Your task to perform on an android device: toggle priority inbox in the gmail app Image 0: 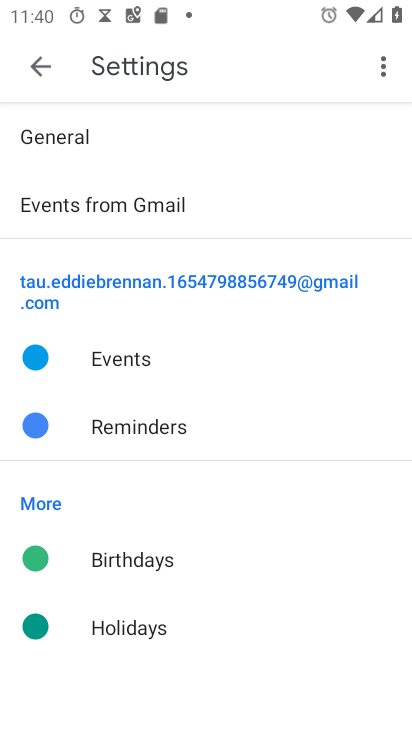
Step 0: press home button
Your task to perform on an android device: toggle priority inbox in the gmail app Image 1: 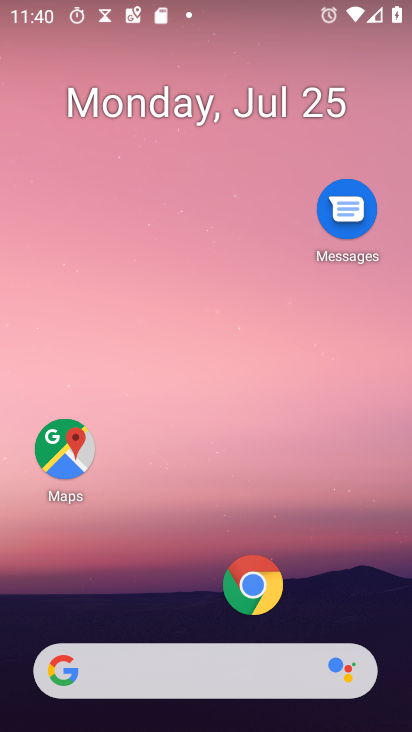
Step 1: drag from (164, 681) to (248, 205)
Your task to perform on an android device: toggle priority inbox in the gmail app Image 2: 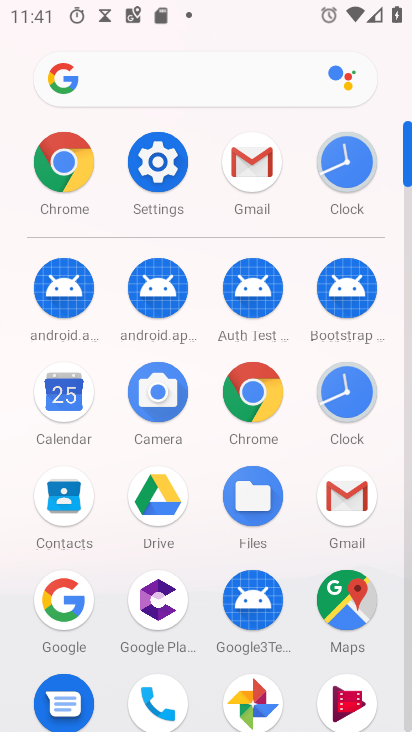
Step 2: click (254, 160)
Your task to perform on an android device: toggle priority inbox in the gmail app Image 3: 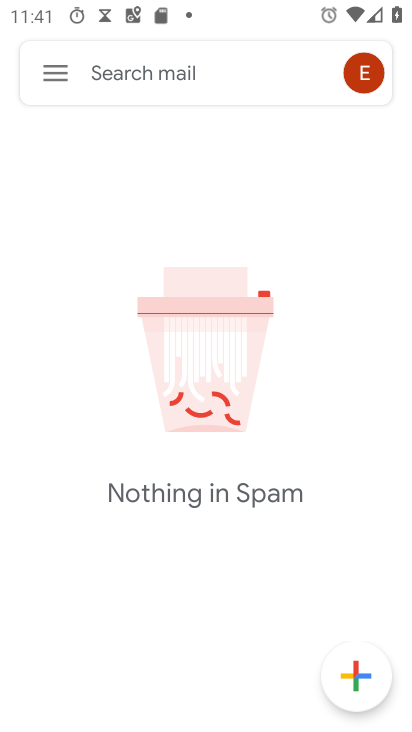
Step 3: click (62, 67)
Your task to perform on an android device: toggle priority inbox in the gmail app Image 4: 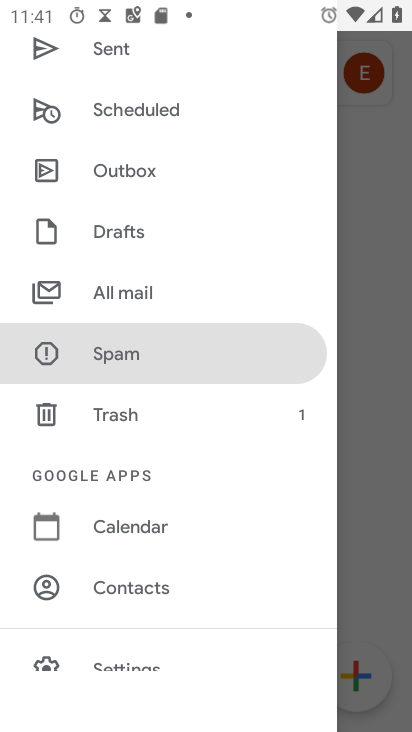
Step 4: drag from (172, 646) to (222, 265)
Your task to perform on an android device: toggle priority inbox in the gmail app Image 5: 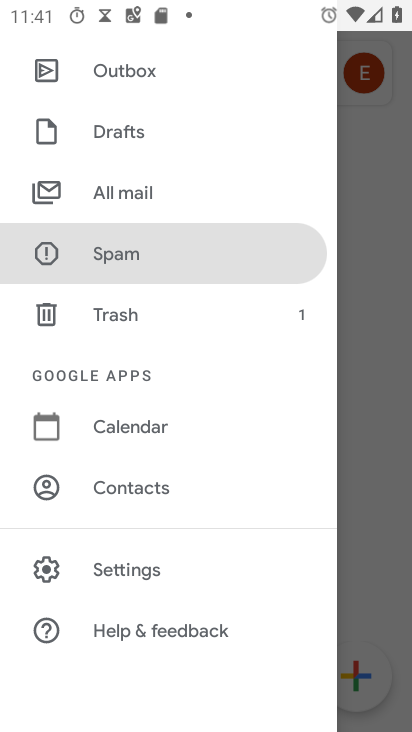
Step 5: click (144, 571)
Your task to perform on an android device: toggle priority inbox in the gmail app Image 6: 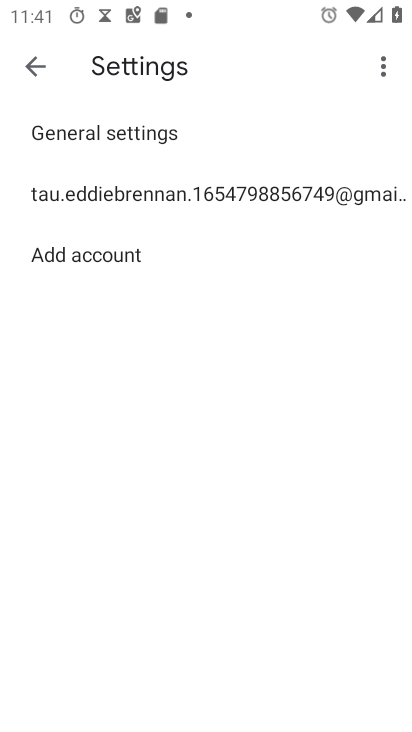
Step 6: click (261, 191)
Your task to perform on an android device: toggle priority inbox in the gmail app Image 7: 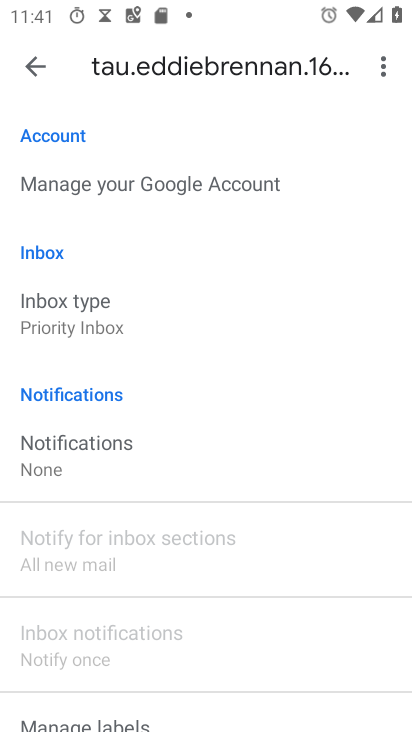
Step 7: click (72, 320)
Your task to perform on an android device: toggle priority inbox in the gmail app Image 8: 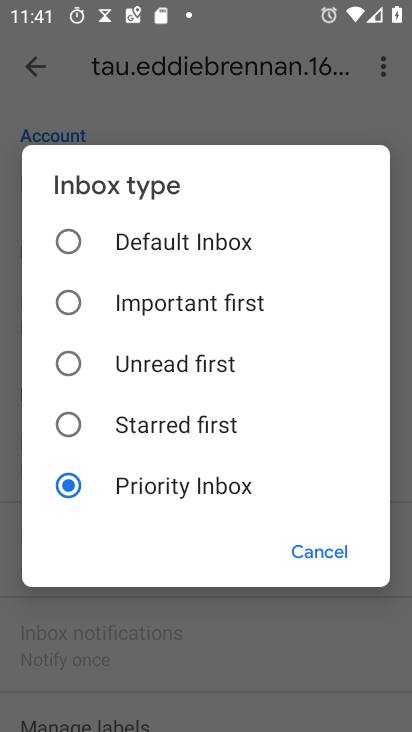
Step 8: click (65, 240)
Your task to perform on an android device: toggle priority inbox in the gmail app Image 9: 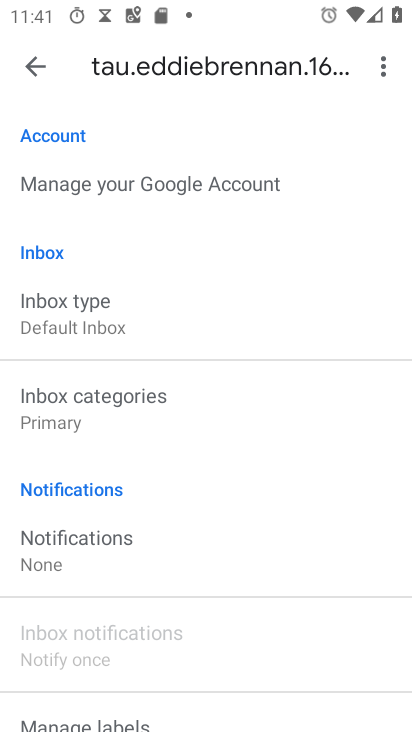
Step 9: task complete